Your task to perform on an android device: turn on improve location accuracy Image 0: 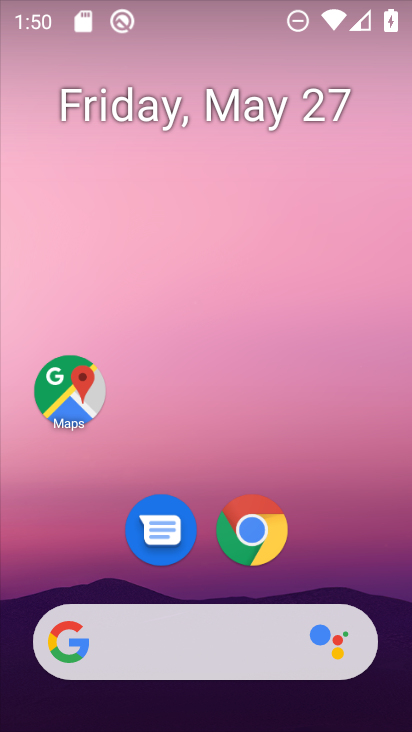
Step 0: drag from (160, 729) to (174, 56)
Your task to perform on an android device: turn on improve location accuracy Image 1: 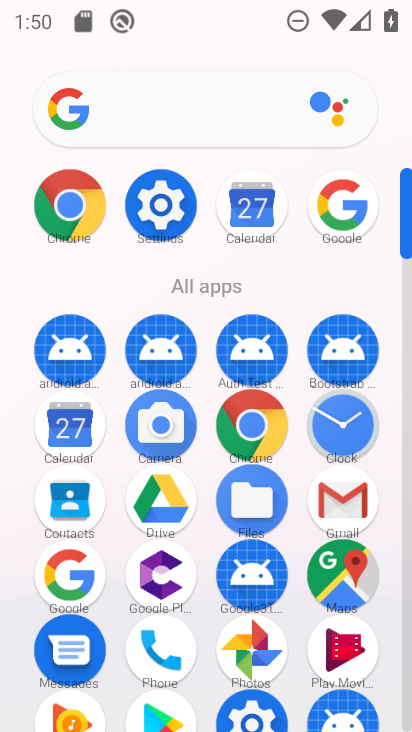
Step 1: click (160, 216)
Your task to perform on an android device: turn on improve location accuracy Image 2: 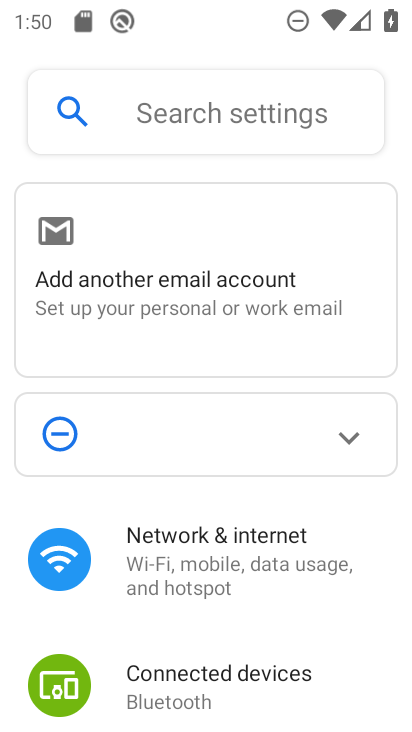
Step 2: drag from (295, 670) to (239, 79)
Your task to perform on an android device: turn on improve location accuracy Image 3: 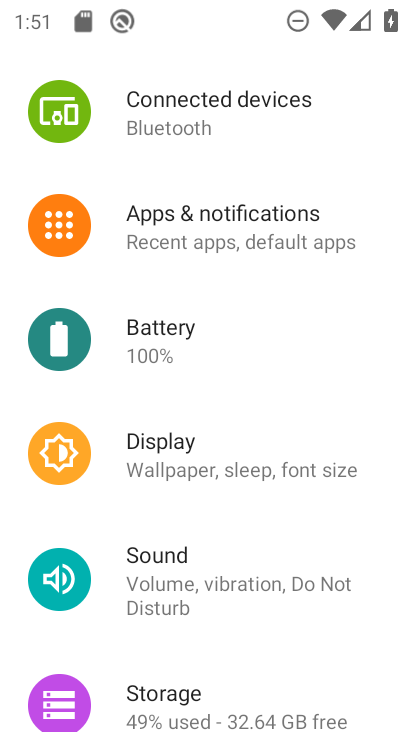
Step 3: drag from (325, 685) to (336, 282)
Your task to perform on an android device: turn on improve location accuracy Image 4: 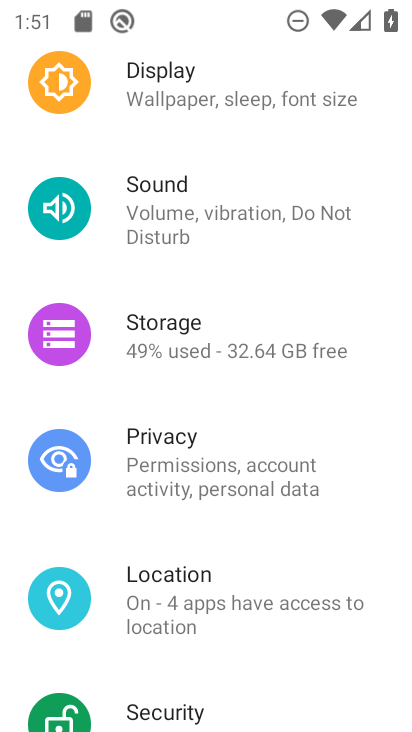
Step 4: click (247, 591)
Your task to perform on an android device: turn on improve location accuracy Image 5: 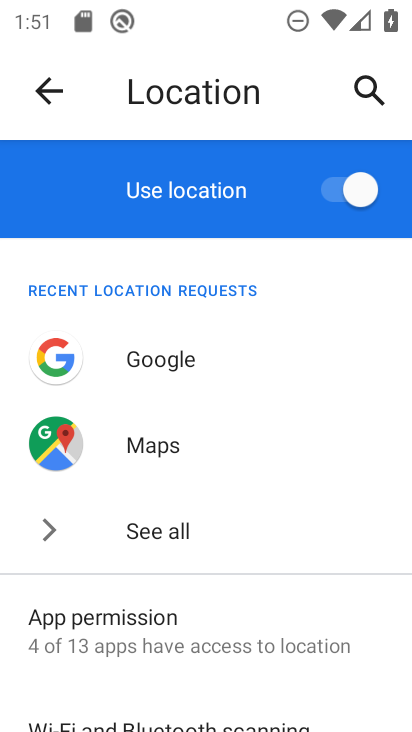
Step 5: drag from (244, 676) to (225, 268)
Your task to perform on an android device: turn on improve location accuracy Image 6: 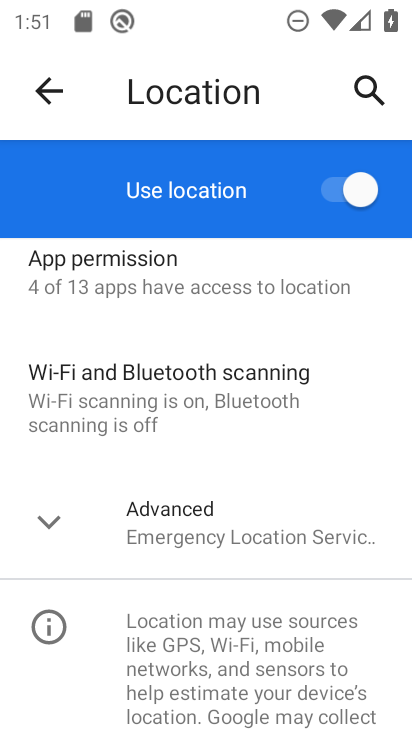
Step 6: click (149, 508)
Your task to perform on an android device: turn on improve location accuracy Image 7: 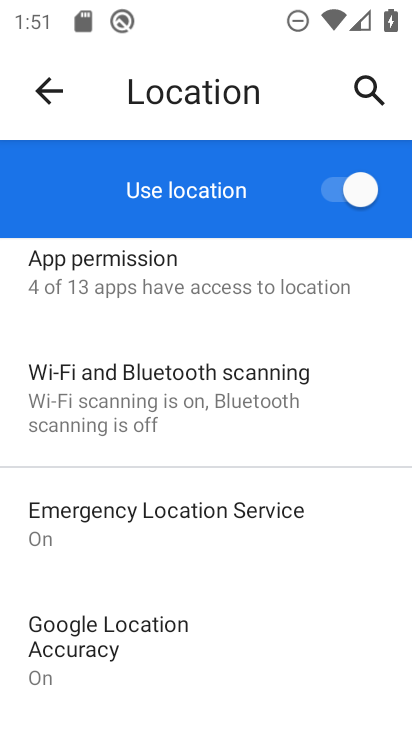
Step 7: drag from (190, 643) to (164, 292)
Your task to perform on an android device: turn on improve location accuracy Image 8: 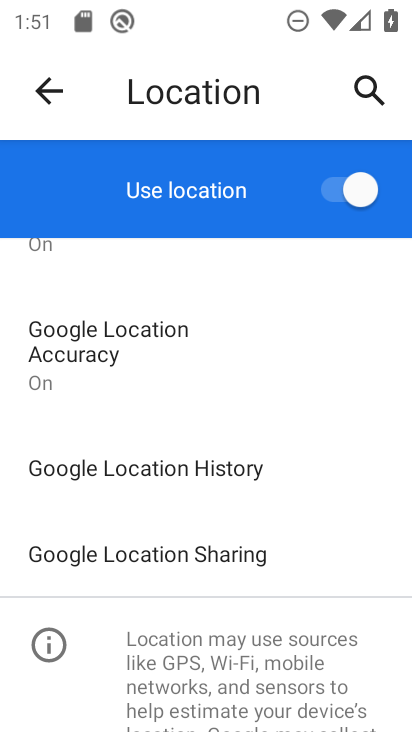
Step 8: click (56, 364)
Your task to perform on an android device: turn on improve location accuracy Image 9: 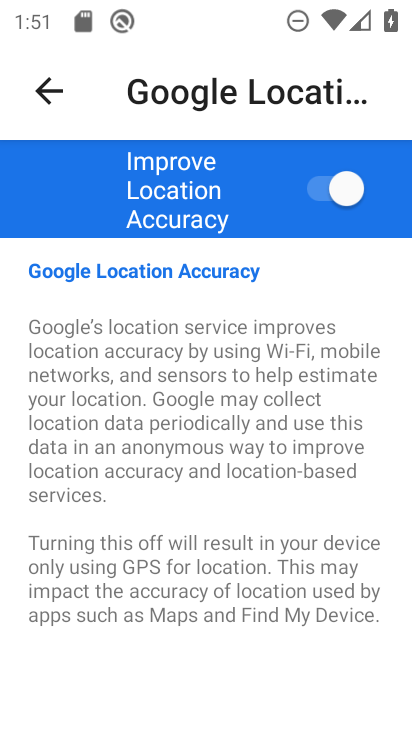
Step 9: task complete